Your task to perform on an android device: toggle pop-ups in chrome Image 0: 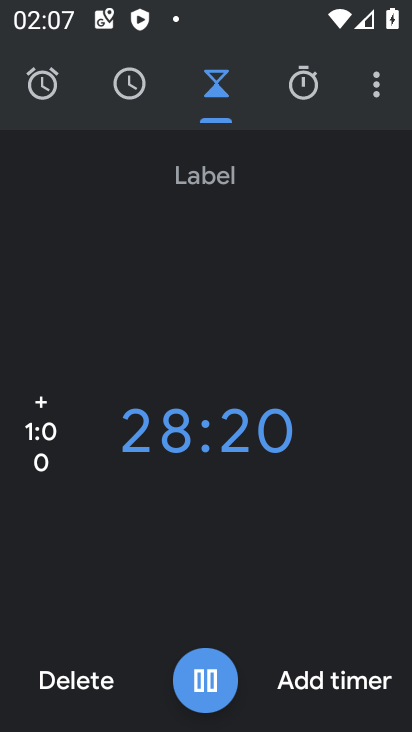
Step 0: press home button
Your task to perform on an android device: toggle pop-ups in chrome Image 1: 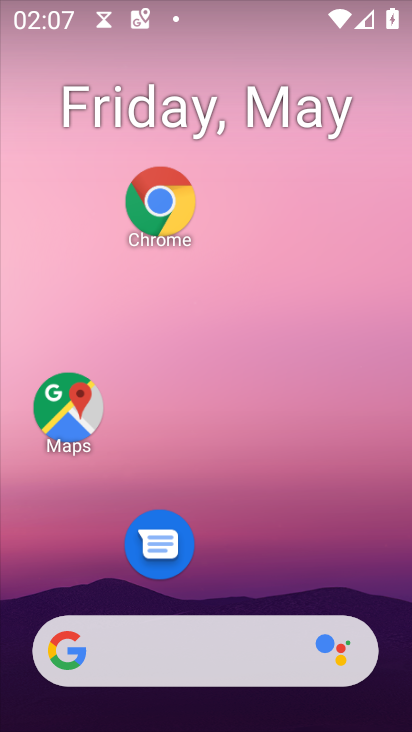
Step 1: drag from (261, 452) to (244, 205)
Your task to perform on an android device: toggle pop-ups in chrome Image 2: 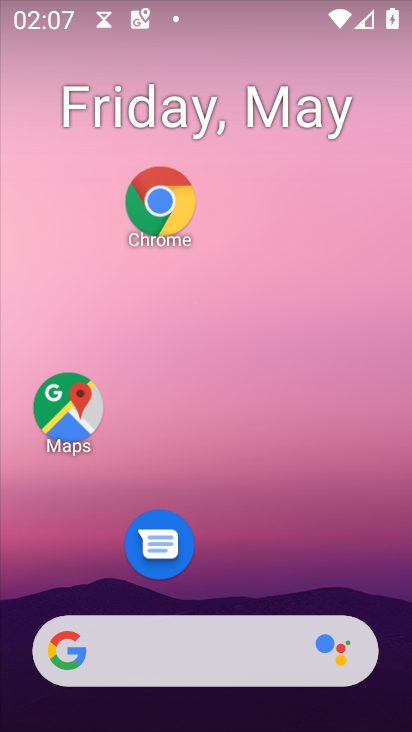
Step 2: drag from (284, 454) to (261, 121)
Your task to perform on an android device: toggle pop-ups in chrome Image 3: 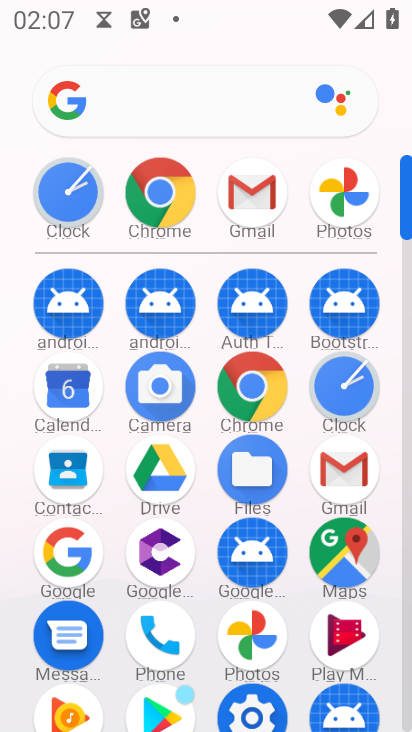
Step 3: click (172, 207)
Your task to perform on an android device: toggle pop-ups in chrome Image 4: 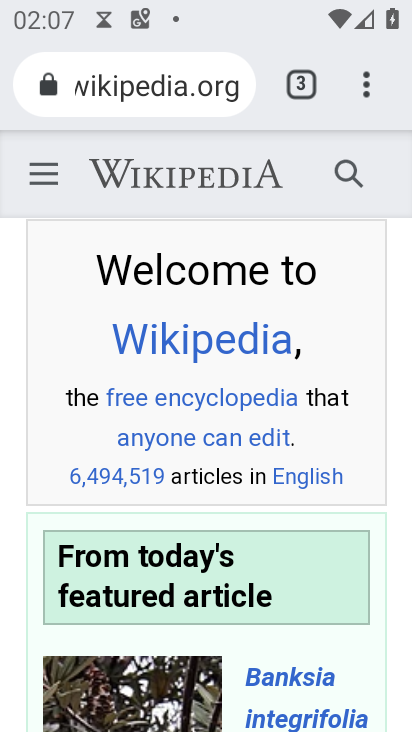
Step 4: click (357, 91)
Your task to perform on an android device: toggle pop-ups in chrome Image 5: 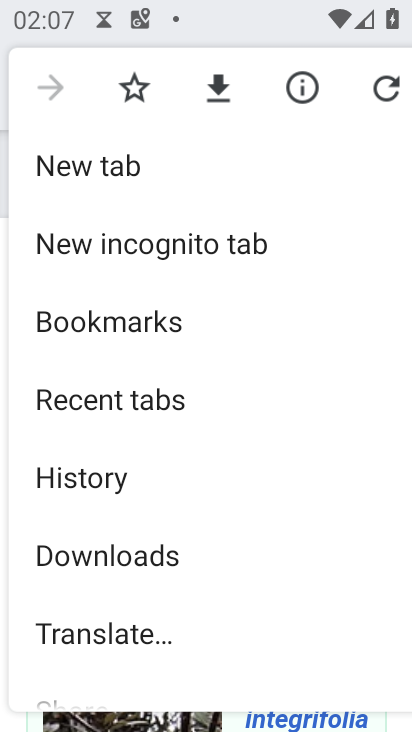
Step 5: drag from (204, 458) to (238, 123)
Your task to perform on an android device: toggle pop-ups in chrome Image 6: 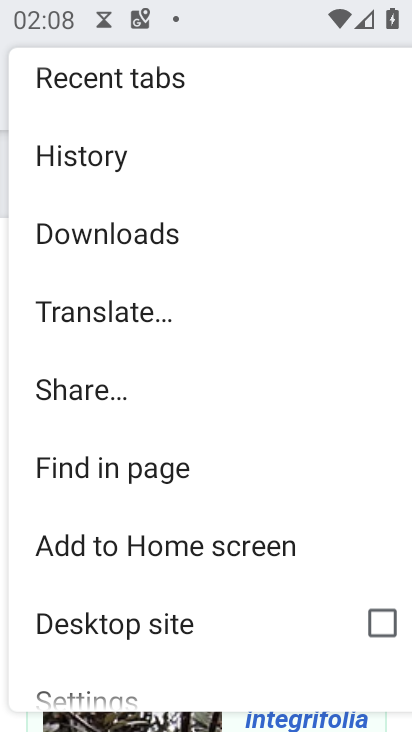
Step 6: drag from (175, 565) to (185, 240)
Your task to perform on an android device: toggle pop-ups in chrome Image 7: 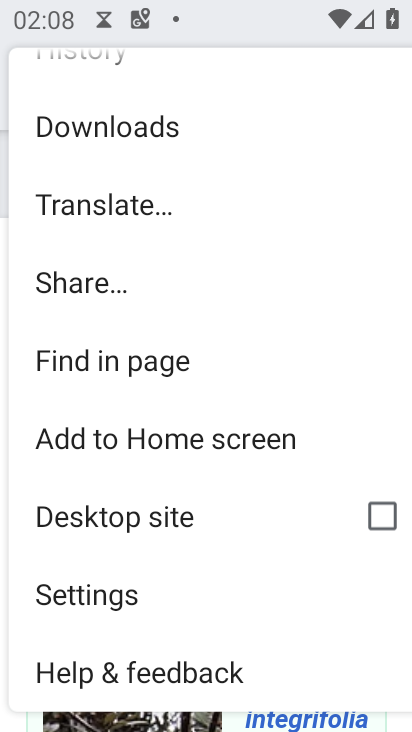
Step 7: click (133, 591)
Your task to perform on an android device: toggle pop-ups in chrome Image 8: 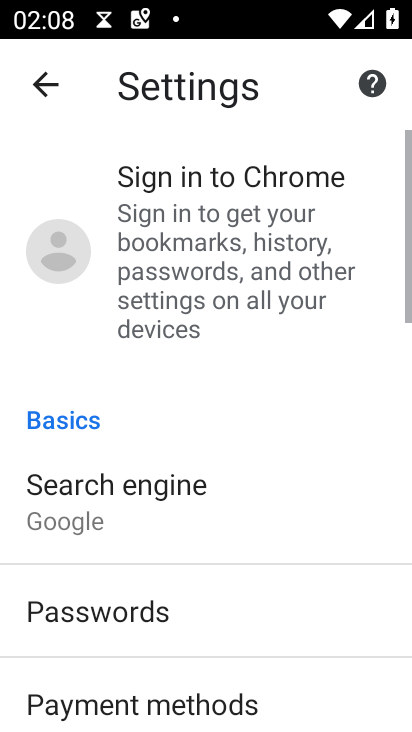
Step 8: drag from (193, 574) to (226, 300)
Your task to perform on an android device: toggle pop-ups in chrome Image 9: 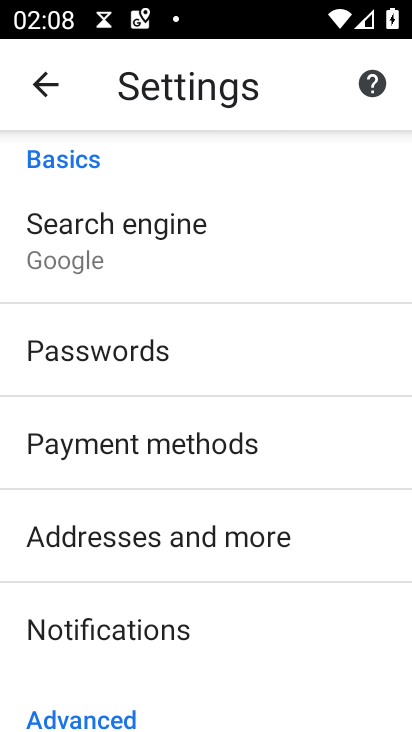
Step 9: drag from (204, 531) to (237, 221)
Your task to perform on an android device: toggle pop-ups in chrome Image 10: 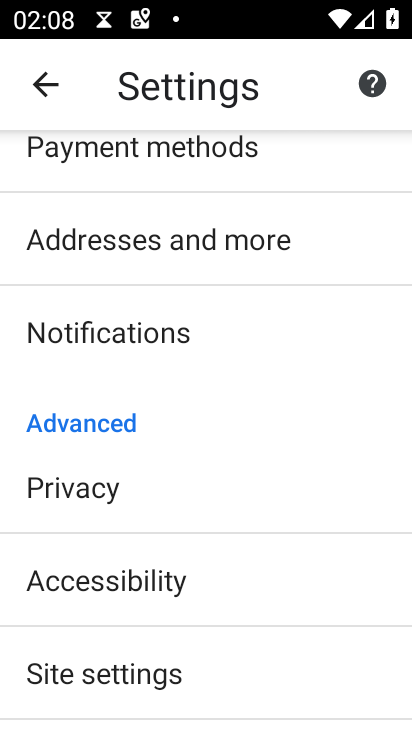
Step 10: click (165, 675)
Your task to perform on an android device: toggle pop-ups in chrome Image 11: 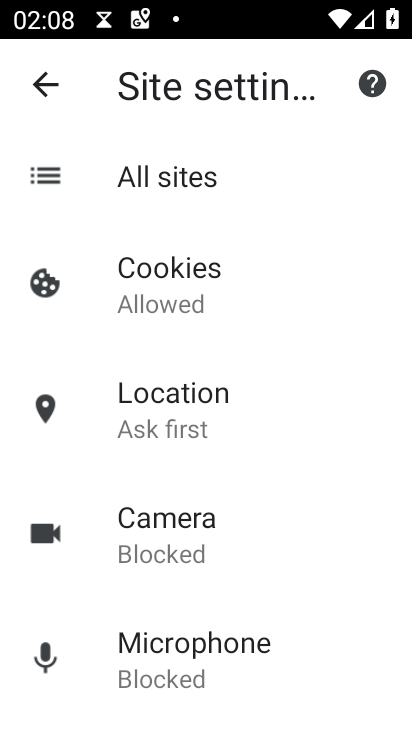
Step 11: drag from (210, 589) to (265, 292)
Your task to perform on an android device: toggle pop-ups in chrome Image 12: 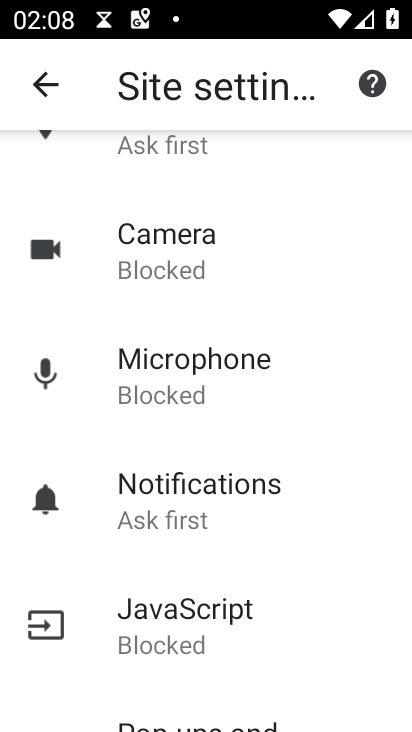
Step 12: drag from (266, 375) to (264, 184)
Your task to perform on an android device: toggle pop-ups in chrome Image 13: 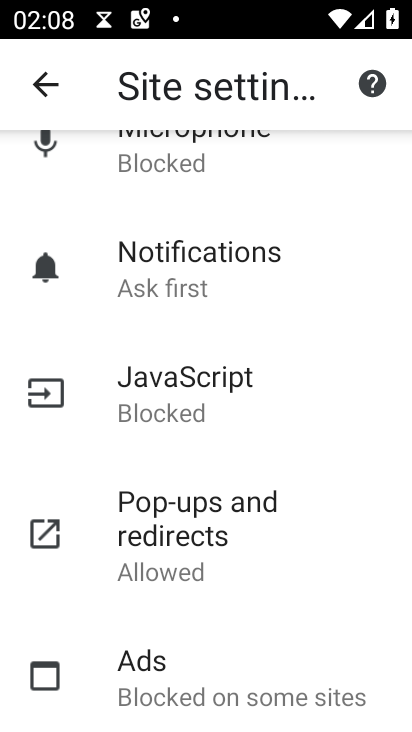
Step 13: drag from (255, 517) to (246, 169)
Your task to perform on an android device: toggle pop-ups in chrome Image 14: 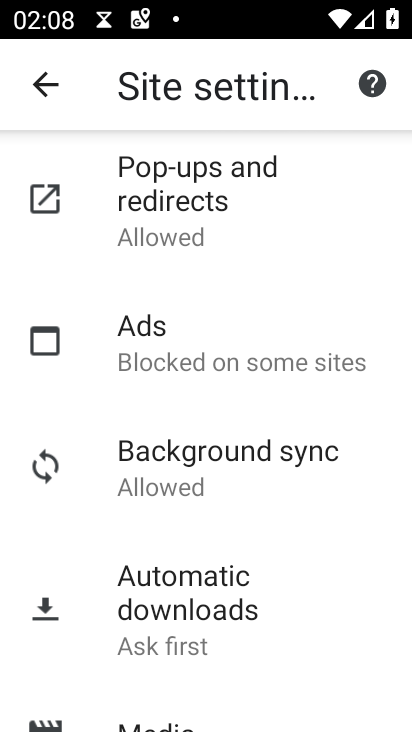
Step 14: drag from (252, 536) to (251, 260)
Your task to perform on an android device: toggle pop-ups in chrome Image 15: 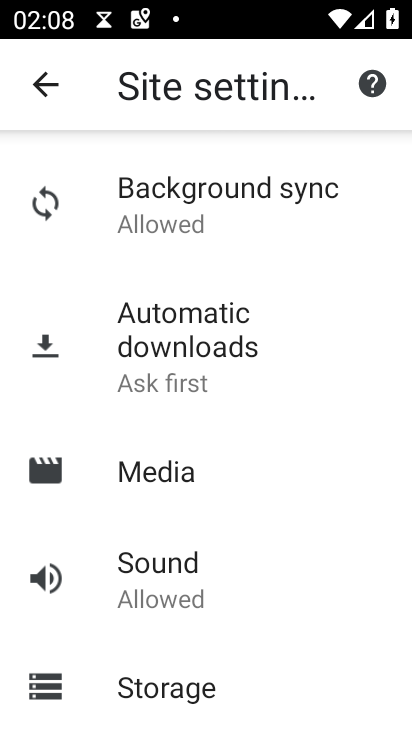
Step 15: drag from (221, 487) to (228, 230)
Your task to perform on an android device: toggle pop-ups in chrome Image 16: 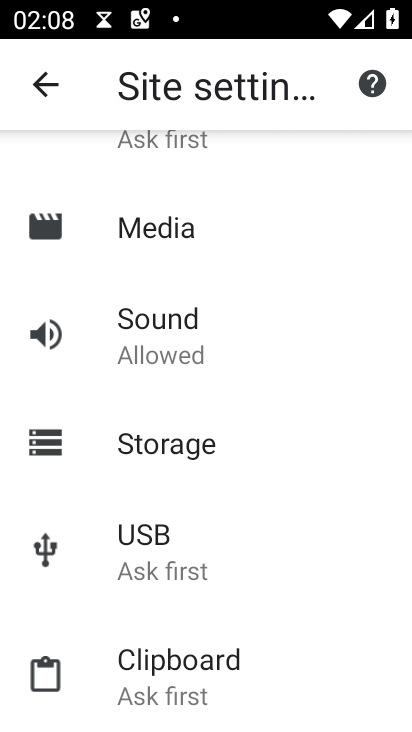
Step 16: drag from (198, 437) to (231, 207)
Your task to perform on an android device: toggle pop-ups in chrome Image 17: 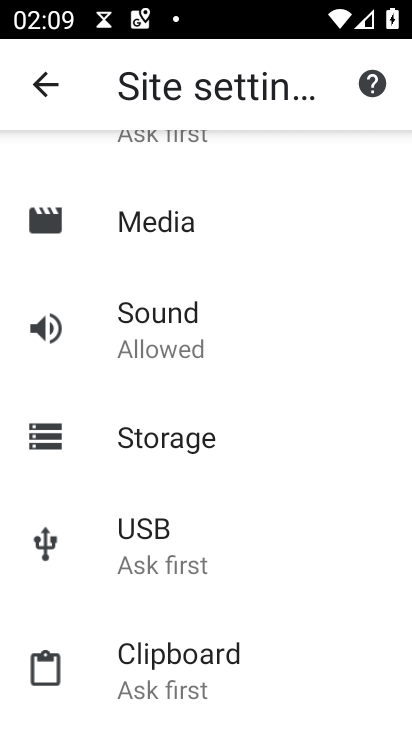
Step 17: drag from (246, 217) to (227, 701)
Your task to perform on an android device: toggle pop-ups in chrome Image 18: 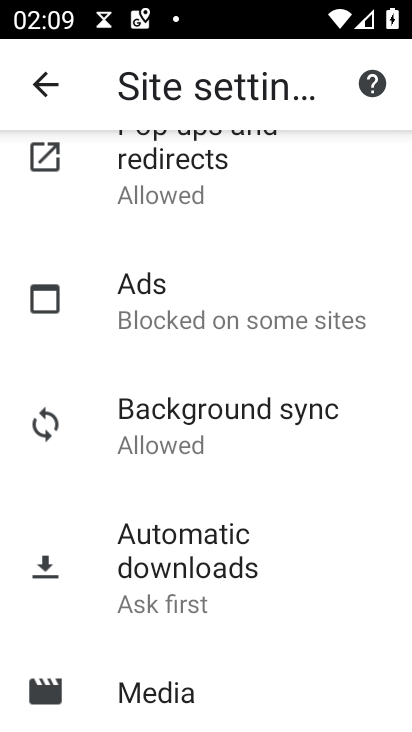
Step 18: drag from (212, 311) to (222, 715)
Your task to perform on an android device: toggle pop-ups in chrome Image 19: 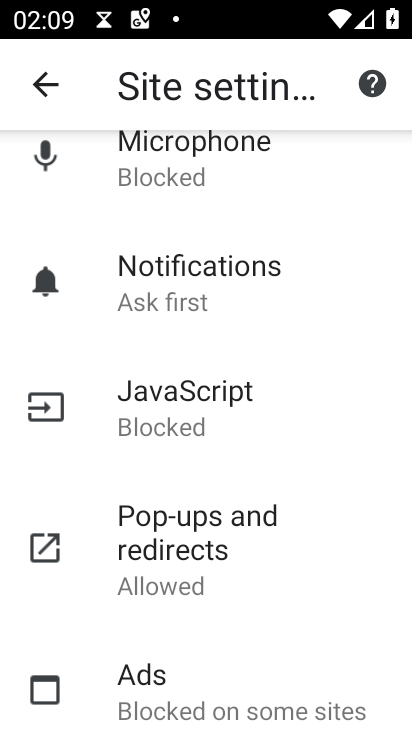
Step 19: drag from (211, 288) to (217, 690)
Your task to perform on an android device: toggle pop-ups in chrome Image 20: 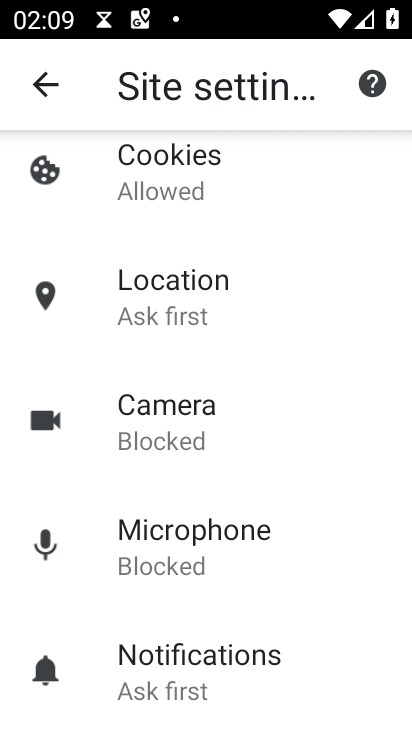
Step 20: drag from (201, 274) to (204, 117)
Your task to perform on an android device: toggle pop-ups in chrome Image 21: 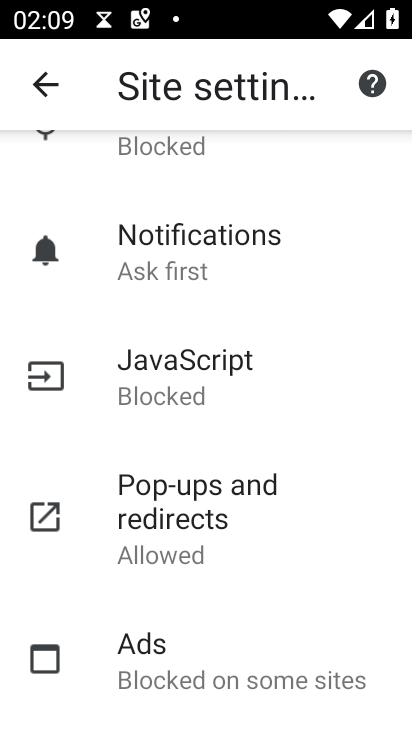
Step 21: click (188, 523)
Your task to perform on an android device: toggle pop-ups in chrome Image 22: 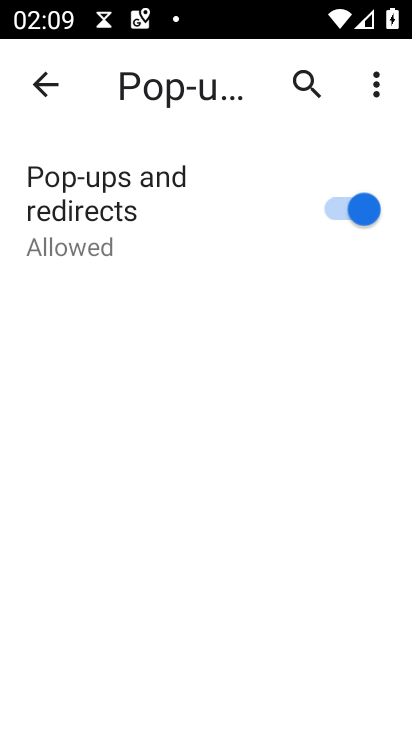
Step 22: click (356, 222)
Your task to perform on an android device: toggle pop-ups in chrome Image 23: 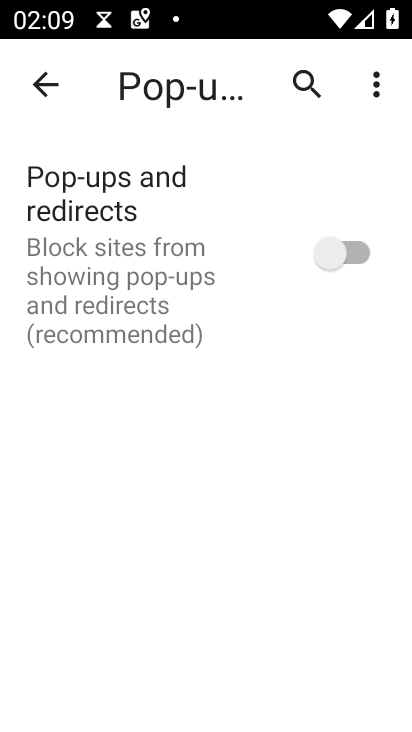
Step 23: task complete